Your task to perform on an android device: Open Google Chrome Image 0: 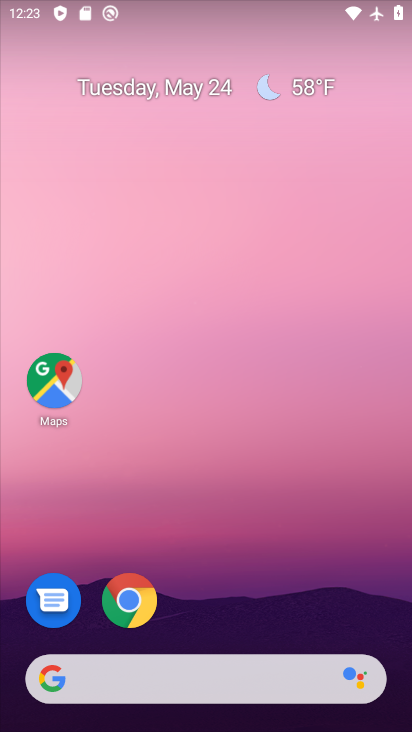
Step 0: click (142, 598)
Your task to perform on an android device: Open Google Chrome Image 1: 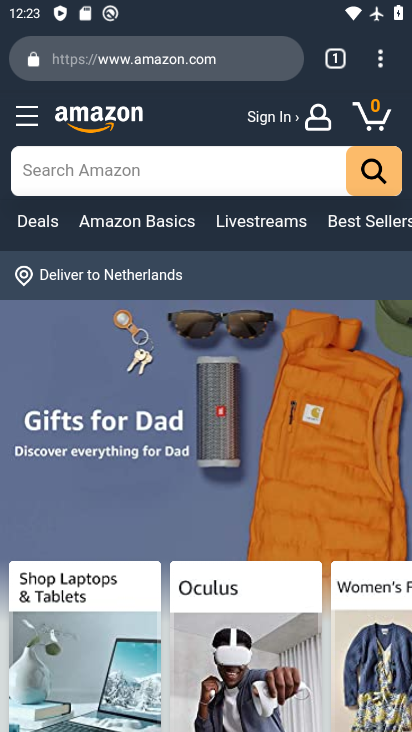
Step 1: task complete